Your task to perform on an android device: Open Yahoo.com Image 0: 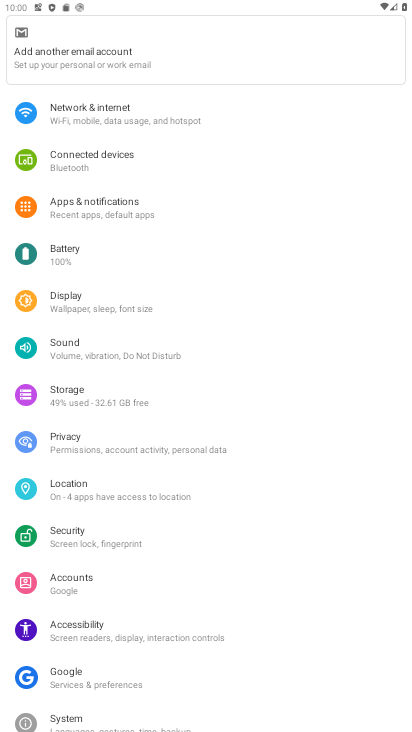
Step 0: drag from (117, 534) to (143, 225)
Your task to perform on an android device: Open Yahoo.com Image 1: 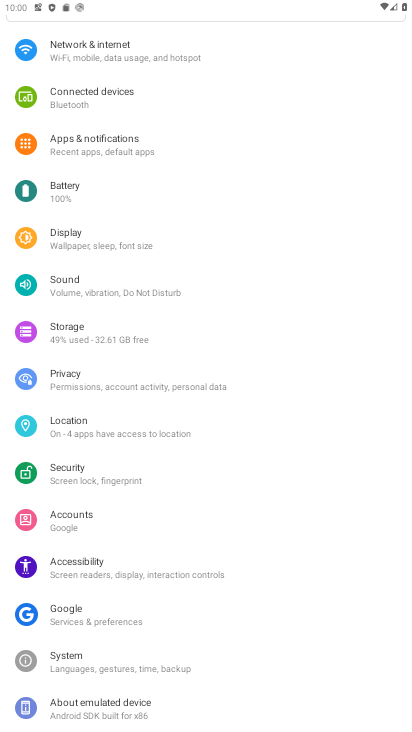
Step 1: press home button
Your task to perform on an android device: Open Yahoo.com Image 2: 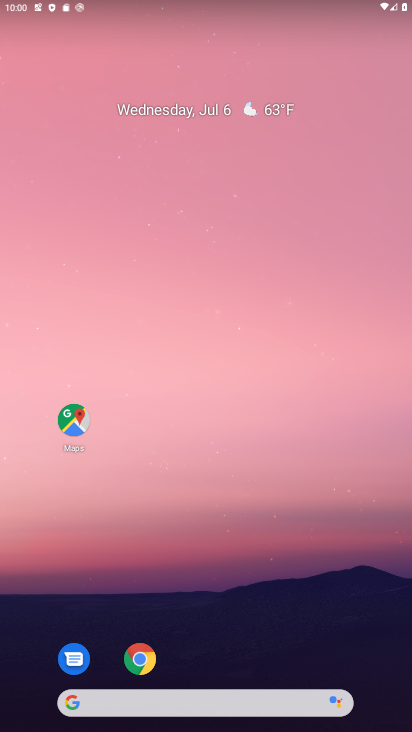
Step 2: drag from (208, 599) to (235, 290)
Your task to perform on an android device: Open Yahoo.com Image 3: 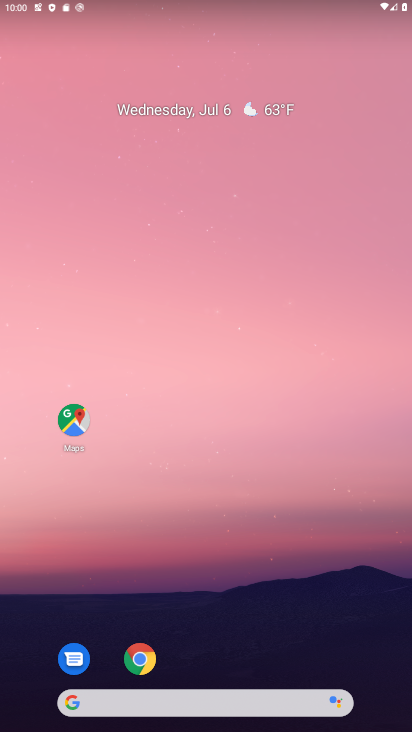
Step 3: drag from (195, 629) to (179, 263)
Your task to perform on an android device: Open Yahoo.com Image 4: 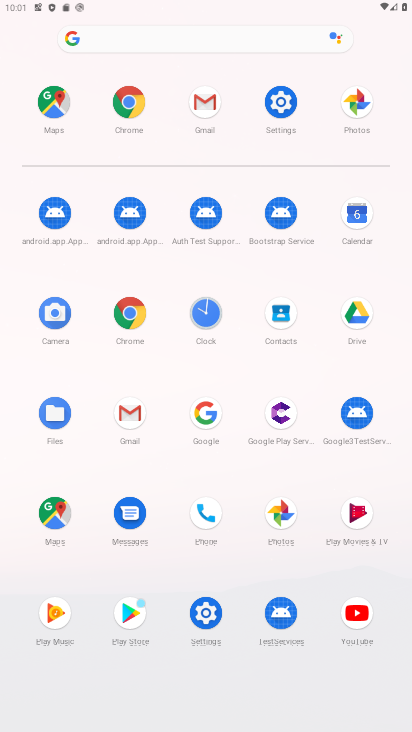
Step 4: click (280, 103)
Your task to perform on an android device: Open Yahoo.com Image 5: 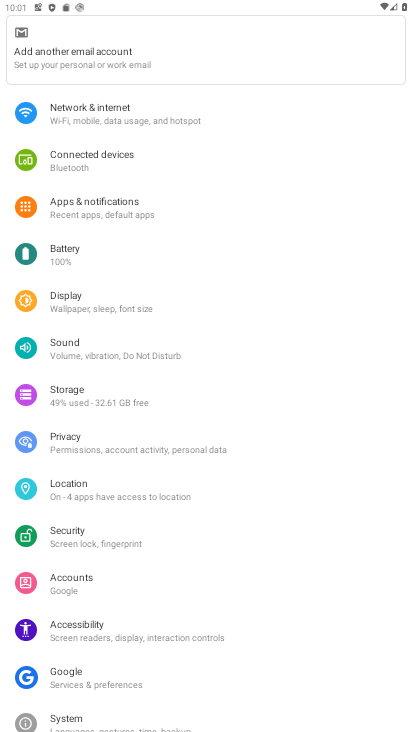
Step 5: press home button
Your task to perform on an android device: Open Yahoo.com Image 6: 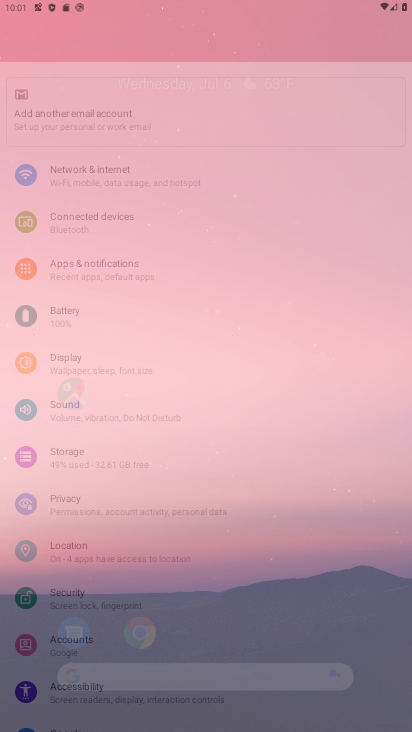
Step 6: drag from (237, 571) to (233, 110)
Your task to perform on an android device: Open Yahoo.com Image 7: 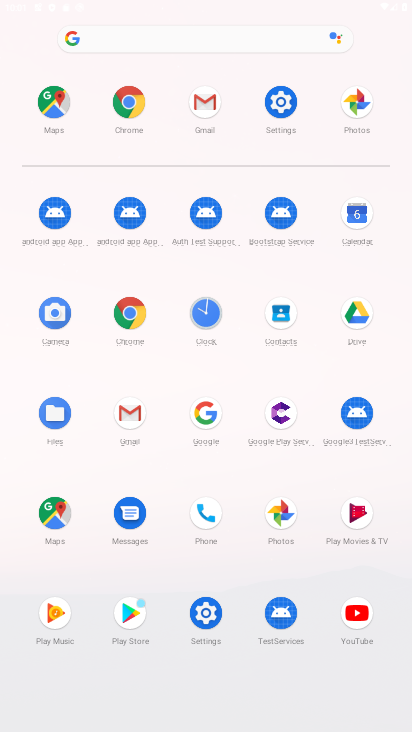
Step 7: click (130, 306)
Your task to perform on an android device: Open Yahoo.com Image 8: 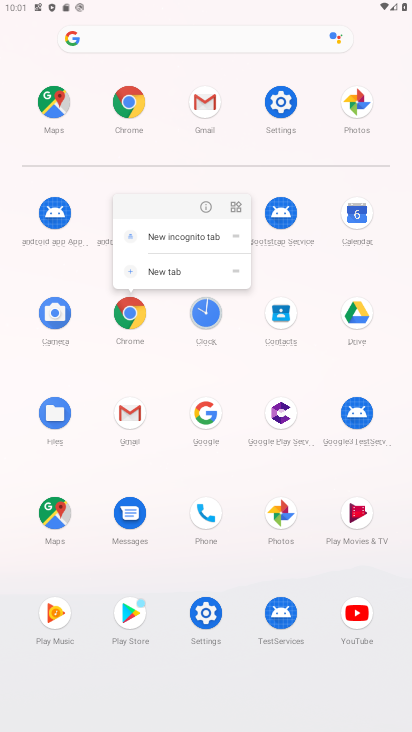
Step 8: click (200, 206)
Your task to perform on an android device: Open Yahoo.com Image 9: 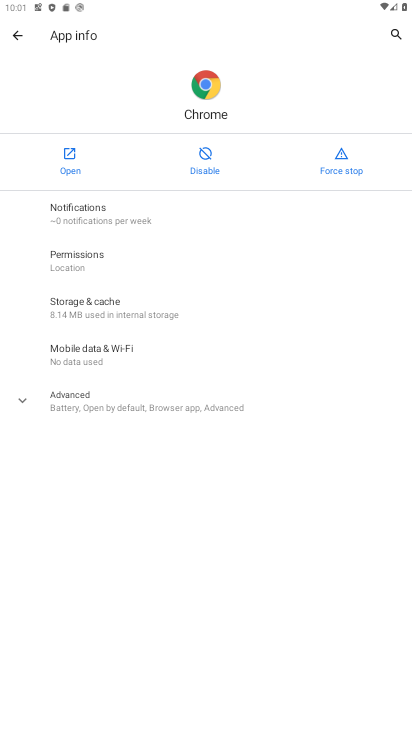
Step 9: click (60, 155)
Your task to perform on an android device: Open Yahoo.com Image 10: 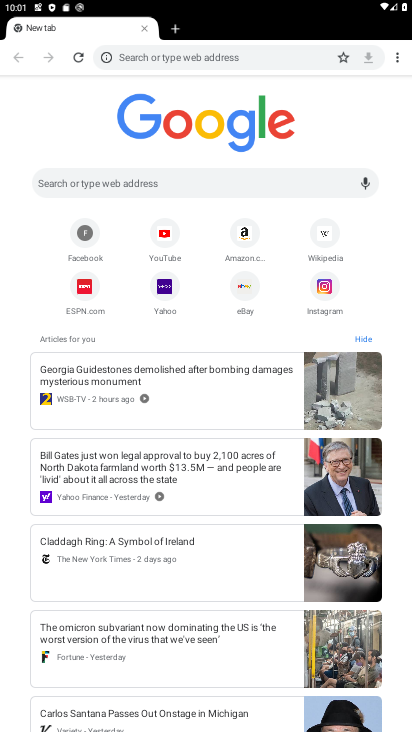
Step 10: click (160, 286)
Your task to perform on an android device: Open Yahoo.com Image 11: 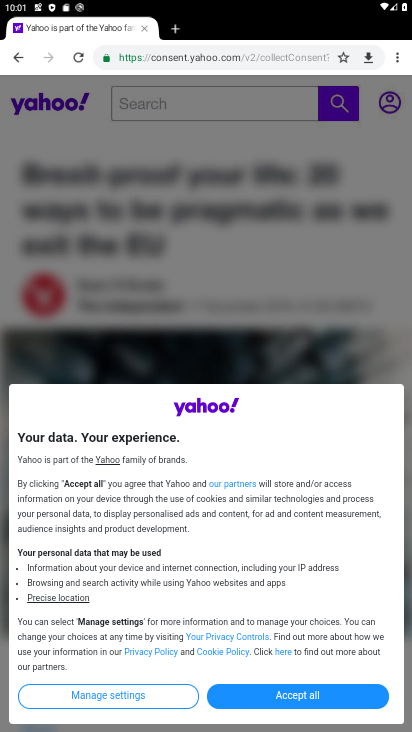
Step 11: click (279, 699)
Your task to perform on an android device: Open Yahoo.com Image 12: 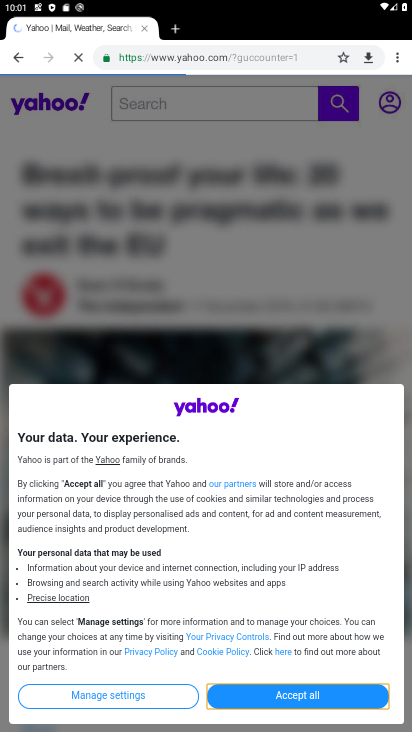
Step 12: task complete